Your task to perform on an android device: What's on my calendar tomorrow? Image 0: 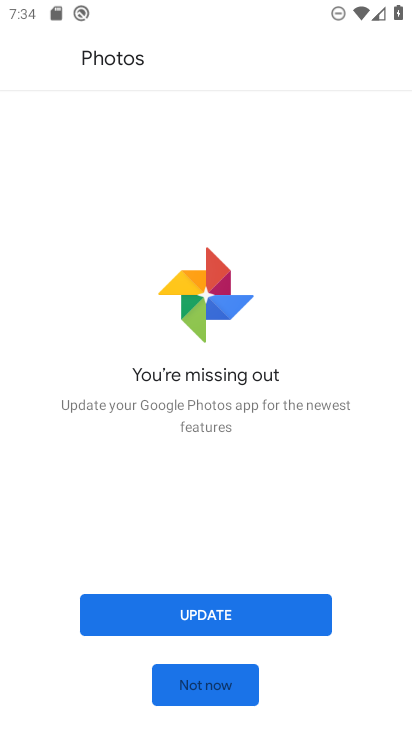
Step 0: press home button
Your task to perform on an android device: What's on my calendar tomorrow? Image 1: 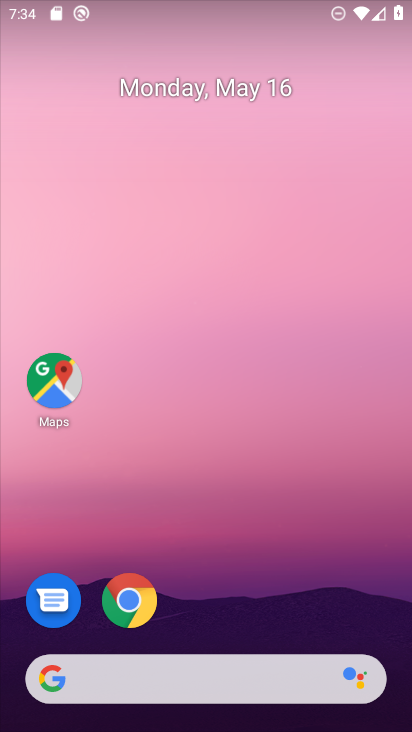
Step 1: drag from (111, 675) to (269, 210)
Your task to perform on an android device: What's on my calendar tomorrow? Image 2: 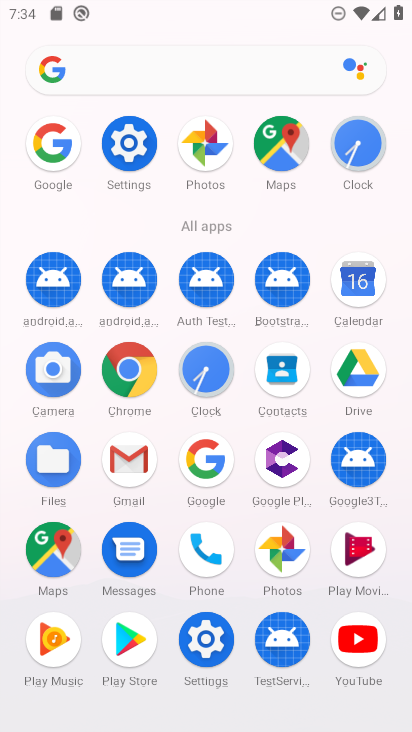
Step 2: click (353, 288)
Your task to perform on an android device: What's on my calendar tomorrow? Image 3: 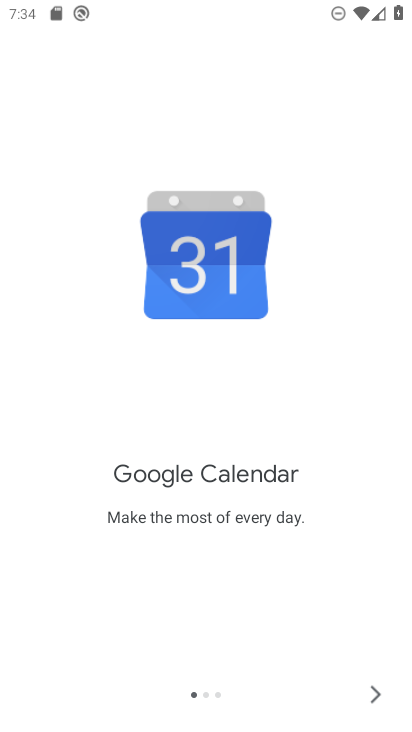
Step 3: click (370, 694)
Your task to perform on an android device: What's on my calendar tomorrow? Image 4: 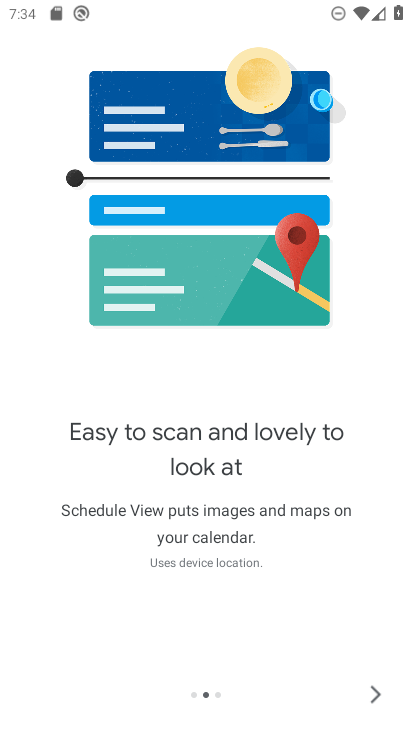
Step 4: click (370, 694)
Your task to perform on an android device: What's on my calendar tomorrow? Image 5: 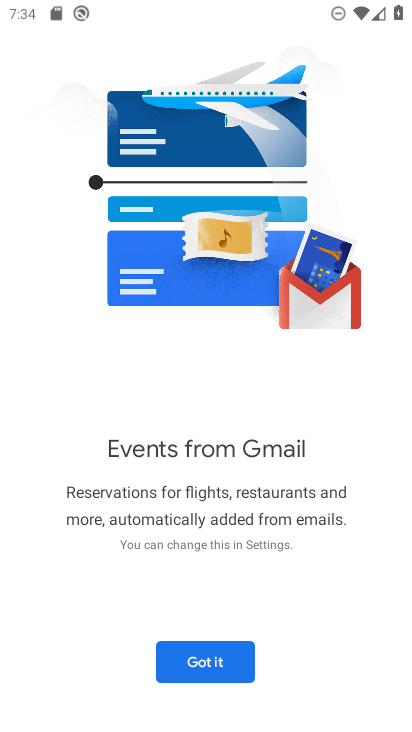
Step 5: click (207, 658)
Your task to perform on an android device: What's on my calendar tomorrow? Image 6: 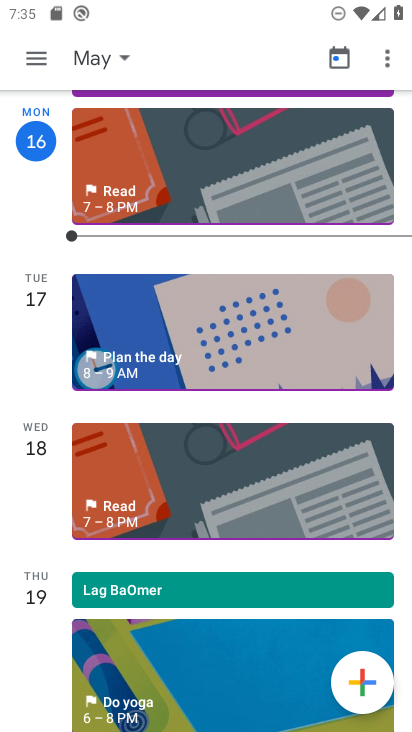
Step 6: click (95, 51)
Your task to perform on an android device: What's on my calendar tomorrow? Image 7: 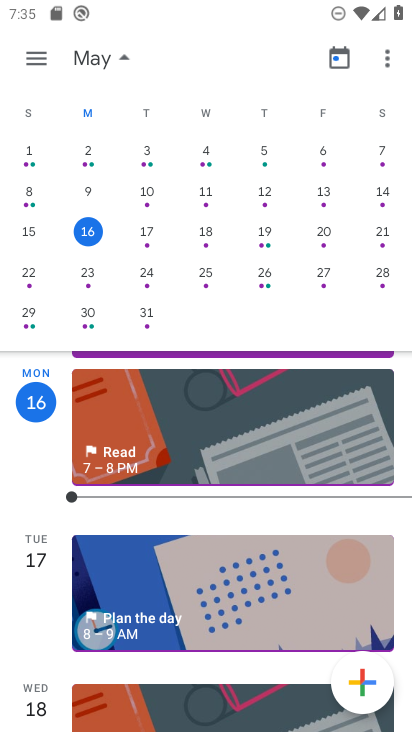
Step 7: click (145, 232)
Your task to perform on an android device: What's on my calendar tomorrow? Image 8: 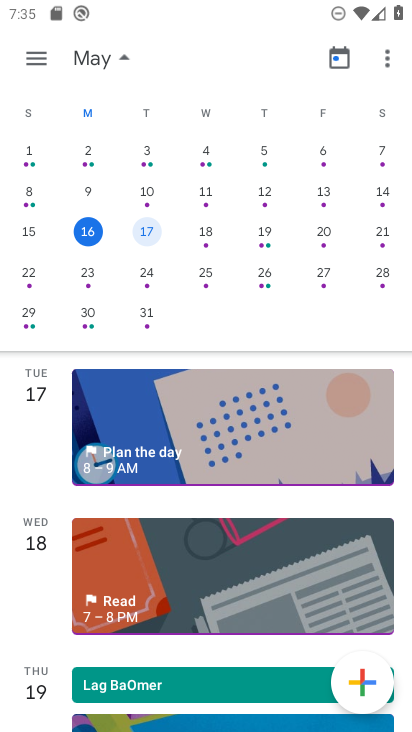
Step 8: click (31, 51)
Your task to perform on an android device: What's on my calendar tomorrow? Image 9: 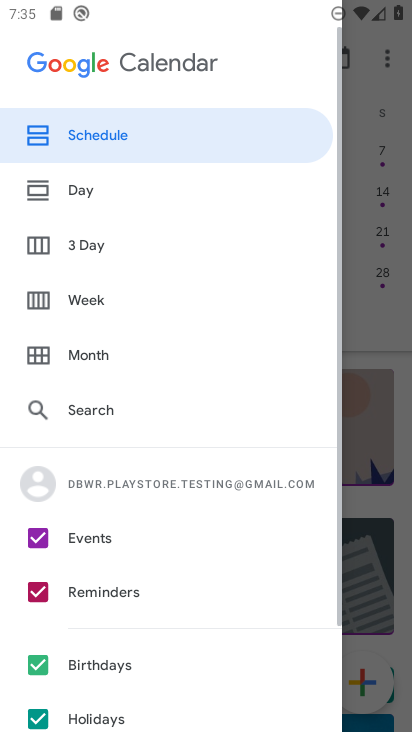
Step 9: click (97, 130)
Your task to perform on an android device: What's on my calendar tomorrow? Image 10: 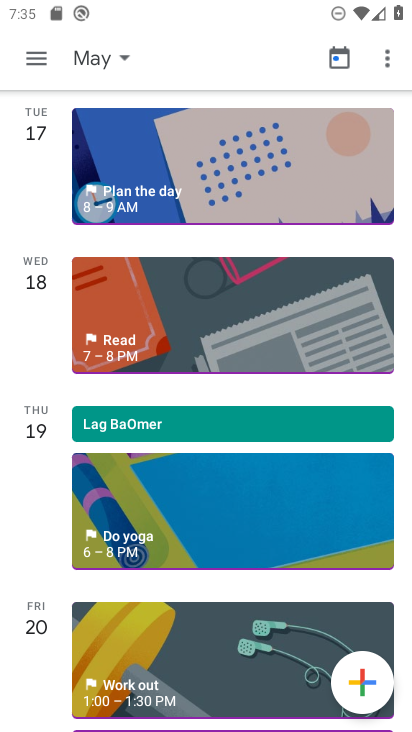
Step 10: click (134, 186)
Your task to perform on an android device: What's on my calendar tomorrow? Image 11: 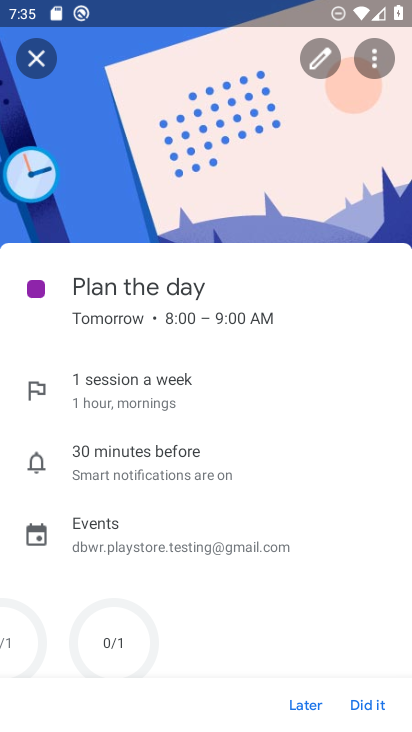
Step 11: task complete